Your task to perform on an android device: move an email to a new category in the gmail app Image 0: 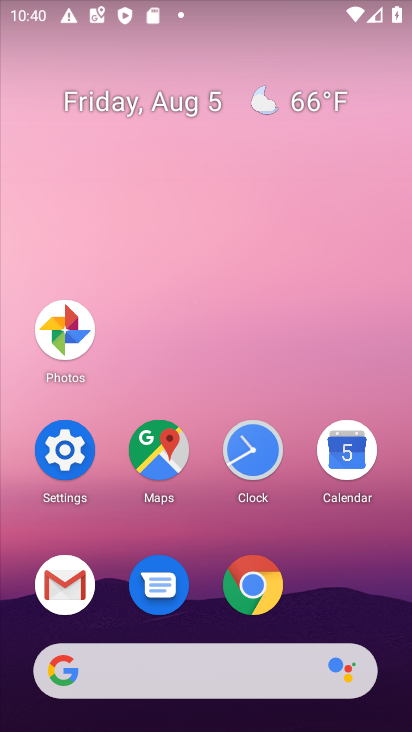
Step 0: click (59, 578)
Your task to perform on an android device: move an email to a new category in the gmail app Image 1: 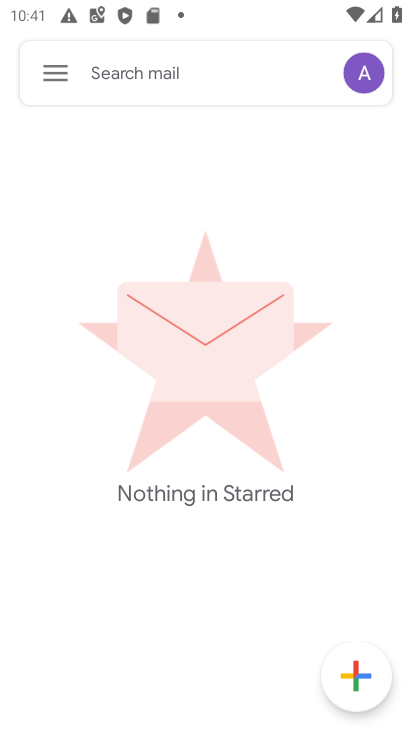
Step 1: click (54, 65)
Your task to perform on an android device: move an email to a new category in the gmail app Image 2: 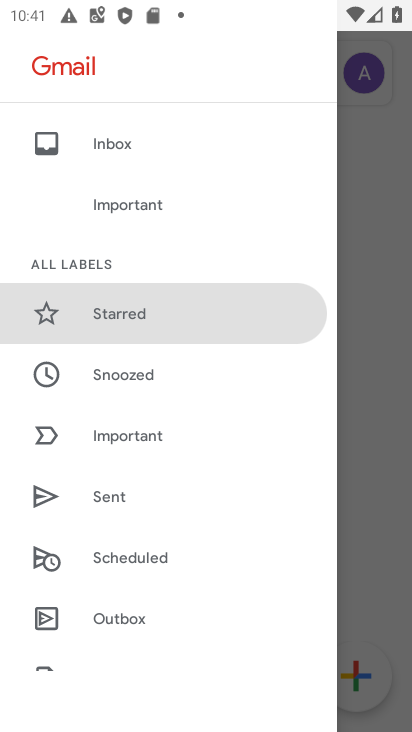
Step 2: drag from (158, 596) to (157, 182)
Your task to perform on an android device: move an email to a new category in the gmail app Image 3: 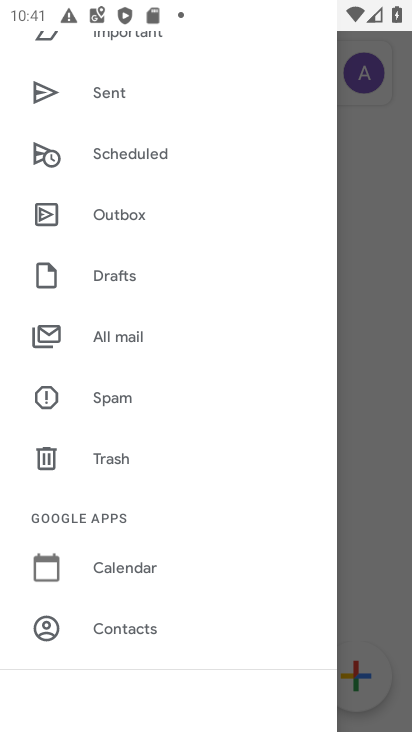
Step 3: click (120, 332)
Your task to perform on an android device: move an email to a new category in the gmail app Image 4: 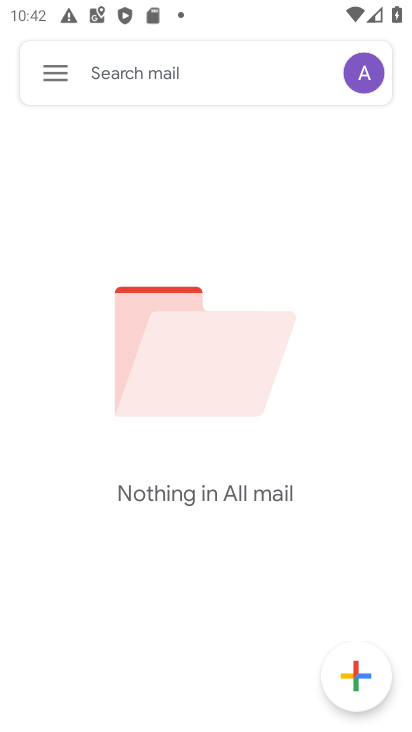
Step 4: task complete